Your task to perform on an android device: Open Google Chrome and click the shortcut for Amazon.com Image 0: 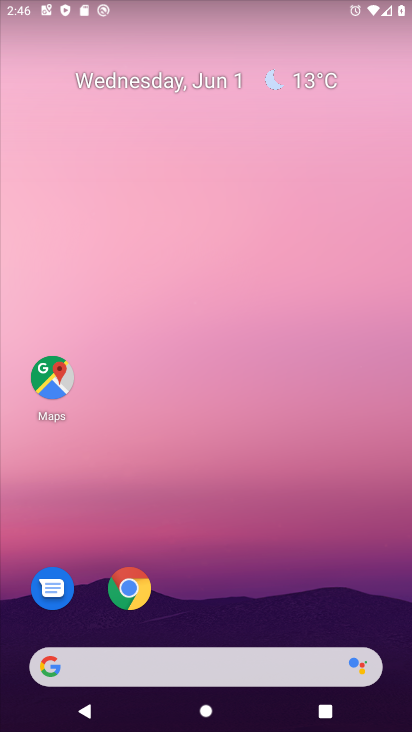
Step 0: click (133, 587)
Your task to perform on an android device: Open Google Chrome and click the shortcut for Amazon.com Image 1: 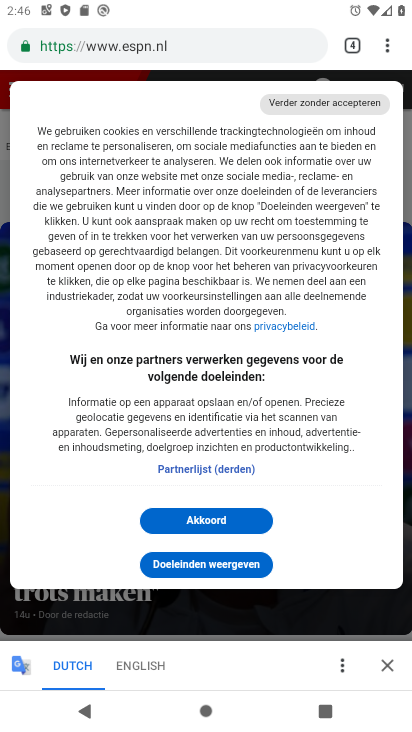
Step 1: click (359, 42)
Your task to perform on an android device: Open Google Chrome and click the shortcut for Amazon.com Image 2: 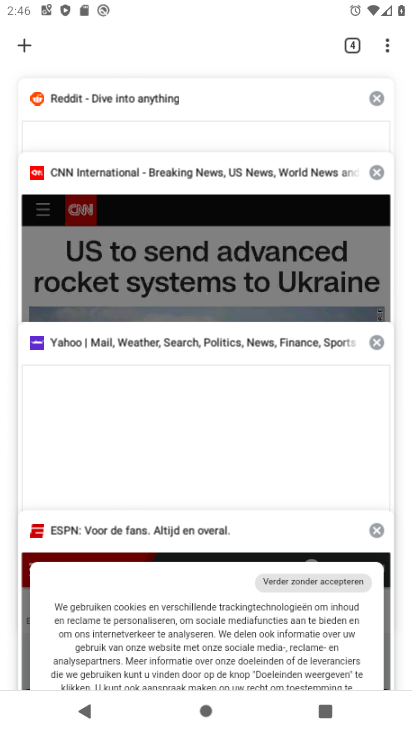
Step 2: click (21, 41)
Your task to perform on an android device: Open Google Chrome and click the shortcut for Amazon.com Image 3: 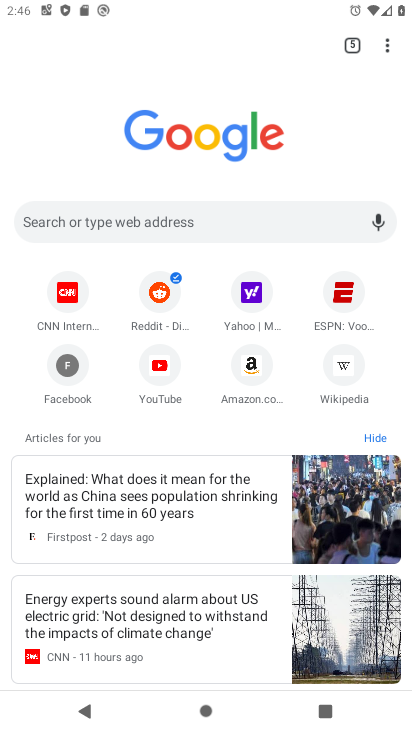
Step 3: click (231, 367)
Your task to perform on an android device: Open Google Chrome and click the shortcut for Amazon.com Image 4: 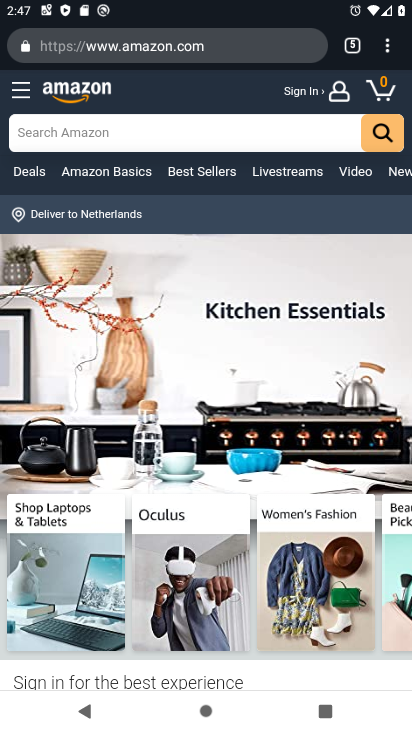
Step 4: task complete